Your task to perform on an android device: change the clock style Image 0: 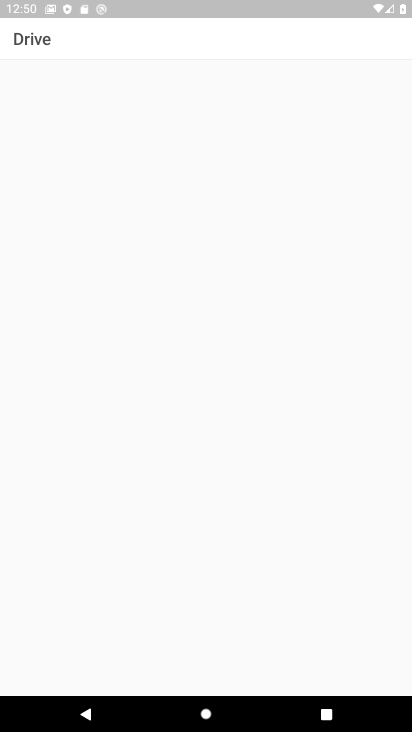
Step 0: press home button
Your task to perform on an android device: change the clock style Image 1: 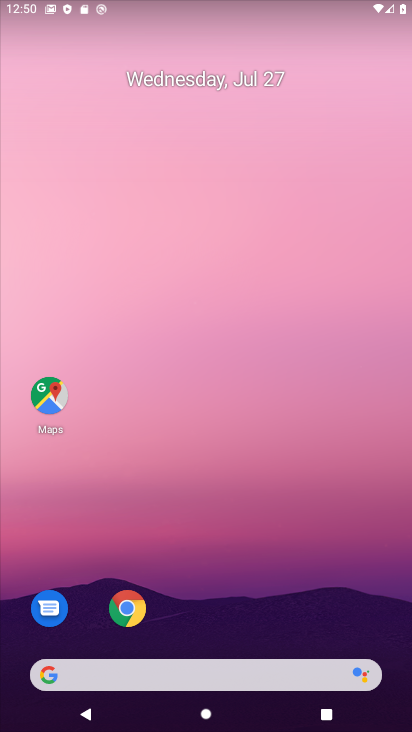
Step 1: drag from (188, 641) to (298, 9)
Your task to perform on an android device: change the clock style Image 2: 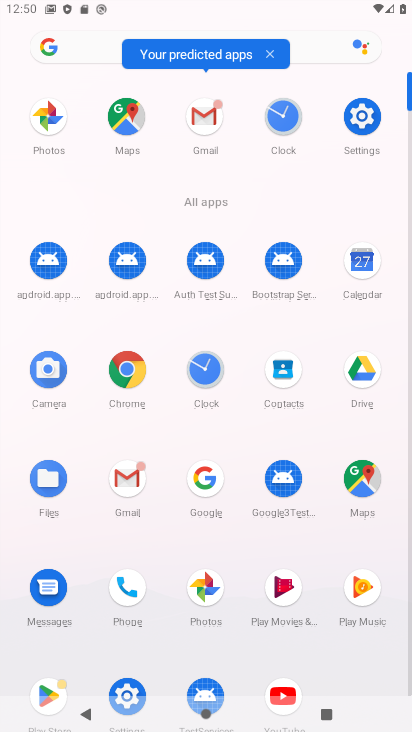
Step 2: click (208, 377)
Your task to perform on an android device: change the clock style Image 3: 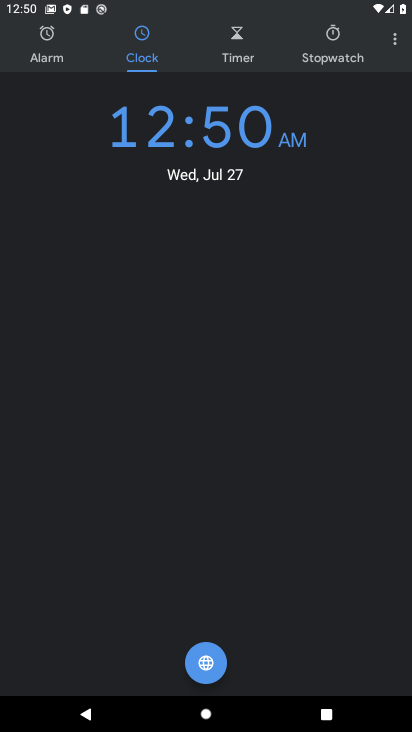
Step 3: click (394, 46)
Your task to perform on an android device: change the clock style Image 4: 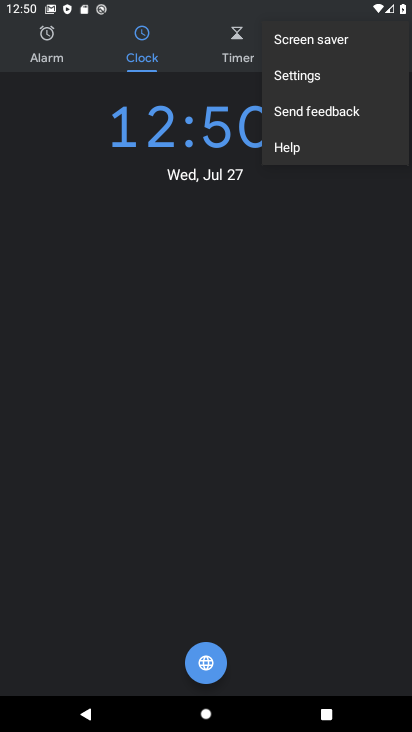
Step 4: click (303, 79)
Your task to perform on an android device: change the clock style Image 5: 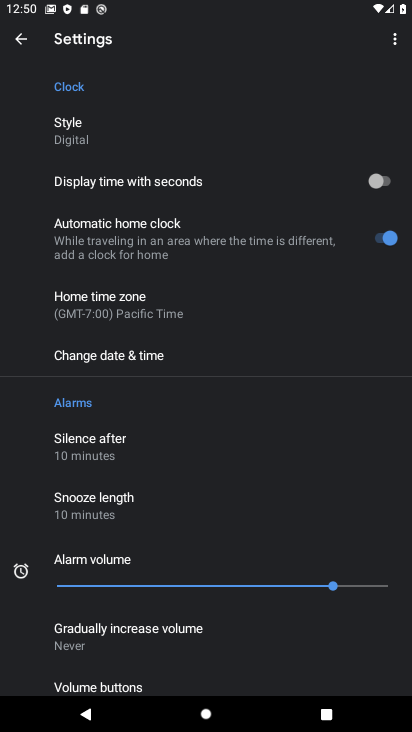
Step 5: click (93, 129)
Your task to perform on an android device: change the clock style Image 6: 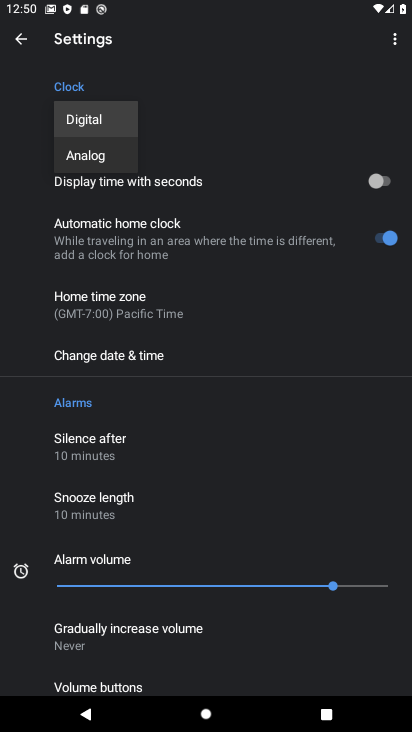
Step 6: click (117, 161)
Your task to perform on an android device: change the clock style Image 7: 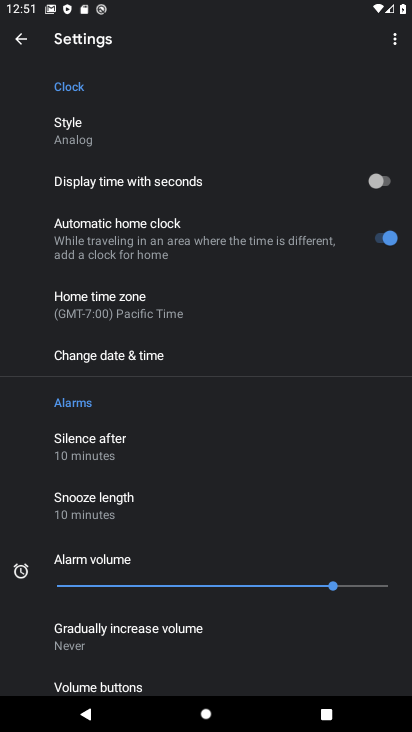
Step 7: task complete